Your task to perform on an android device: turn notification dots on Image 0: 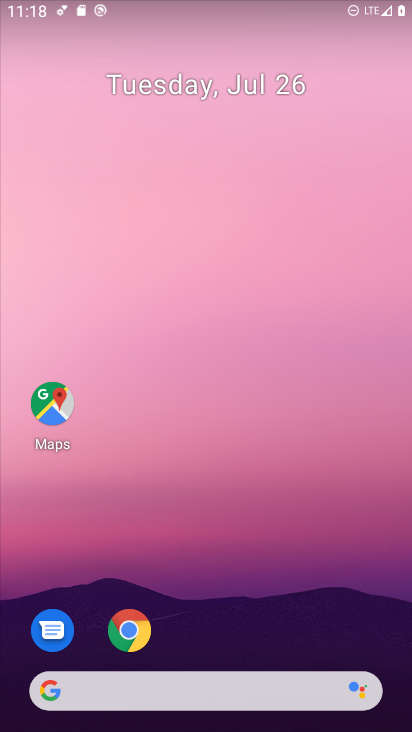
Step 0: drag from (354, 643) to (315, 223)
Your task to perform on an android device: turn notification dots on Image 1: 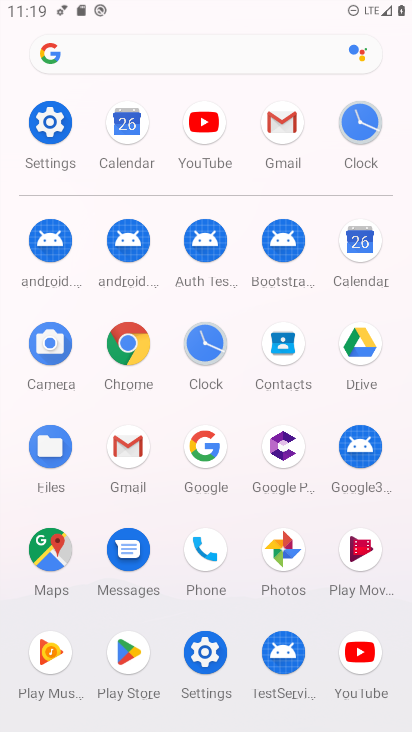
Step 1: click (206, 657)
Your task to perform on an android device: turn notification dots on Image 2: 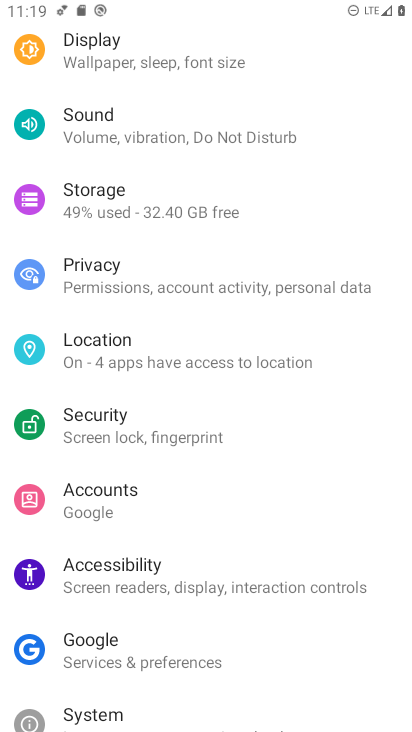
Step 2: drag from (338, 142) to (333, 445)
Your task to perform on an android device: turn notification dots on Image 3: 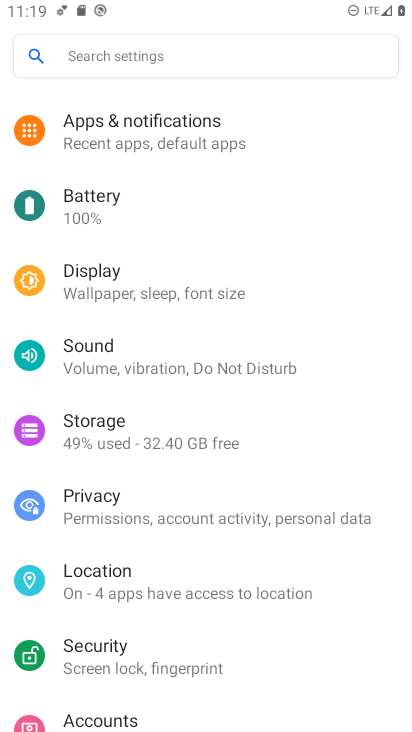
Step 3: drag from (314, 230) to (326, 423)
Your task to perform on an android device: turn notification dots on Image 4: 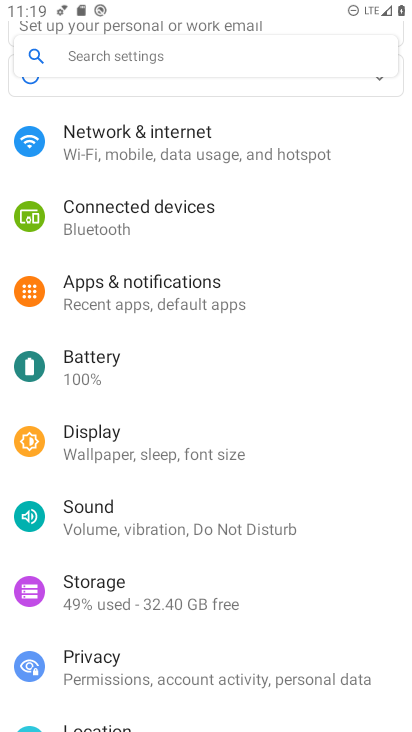
Step 4: click (103, 288)
Your task to perform on an android device: turn notification dots on Image 5: 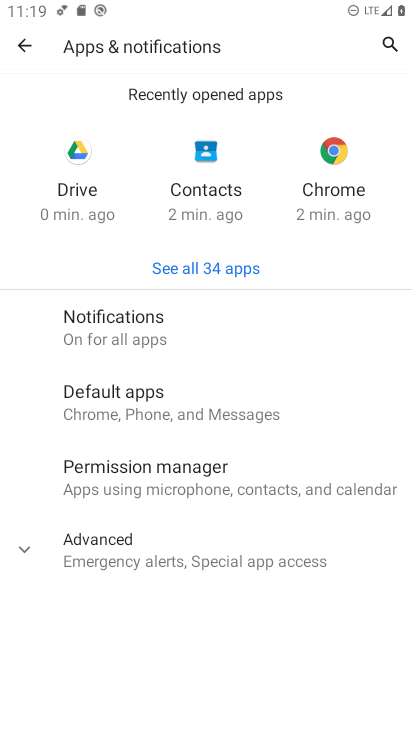
Step 5: click (107, 324)
Your task to perform on an android device: turn notification dots on Image 6: 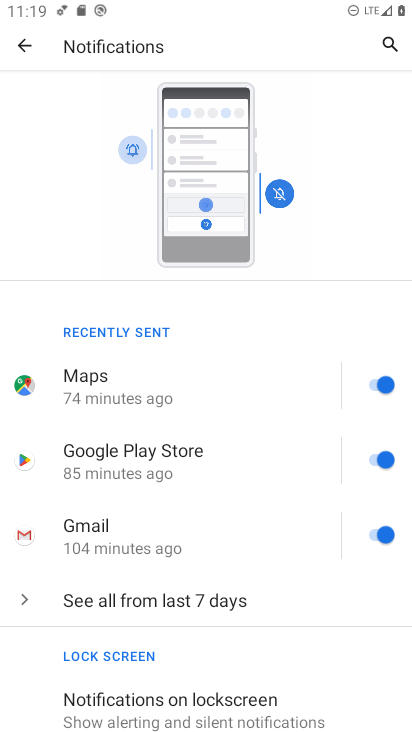
Step 6: drag from (259, 676) to (250, 357)
Your task to perform on an android device: turn notification dots on Image 7: 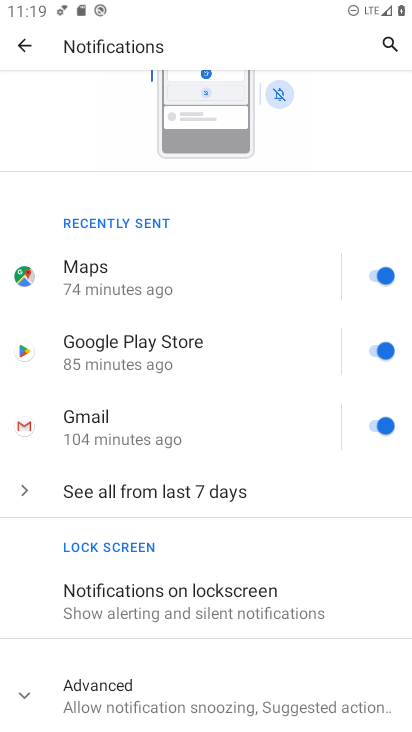
Step 7: click (23, 696)
Your task to perform on an android device: turn notification dots on Image 8: 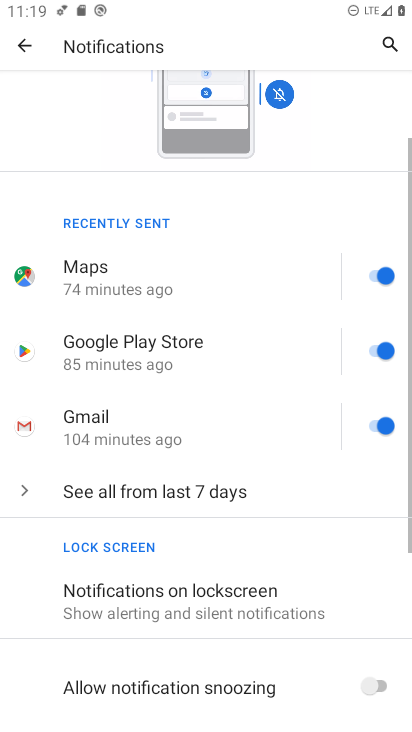
Step 8: task complete